Your task to perform on an android device: Go to Yahoo.com Image 0: 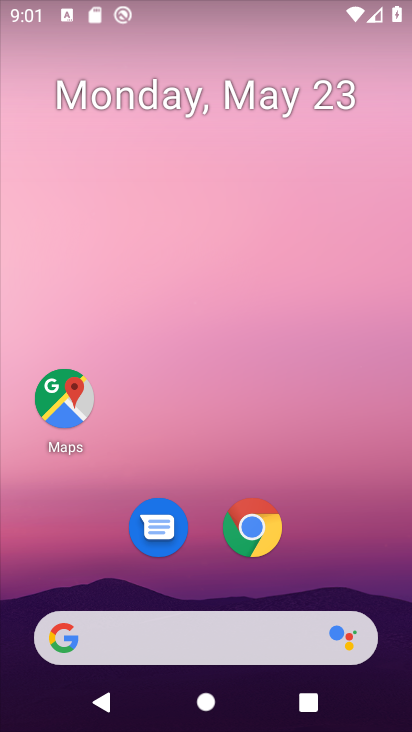
Step 0: drag from (349, 549) to (234, 47)
Your task to perform on an android device: Go to Yahoo.com Image 1: 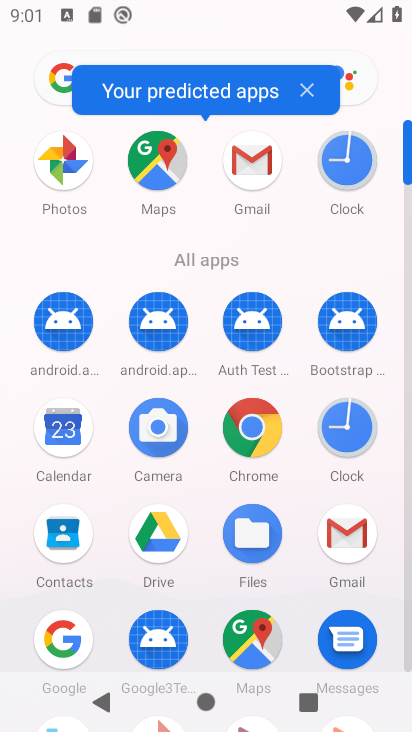
Step 1: click (248, 425)
Your task to perform on an android device: Go to Yahoo.com Image 2: 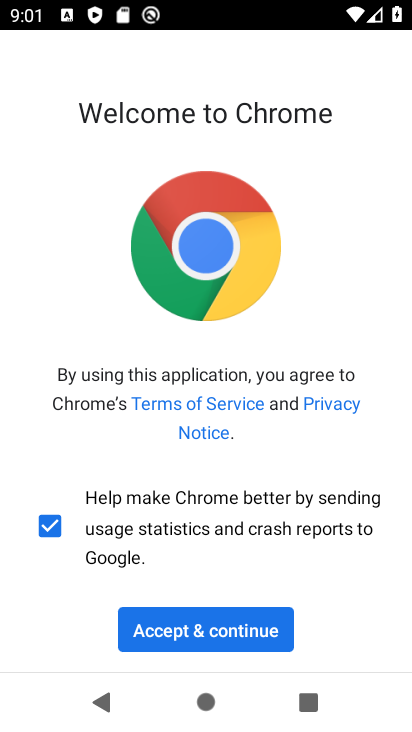
Step 2: click (218, 628)
Your task to perform on an android device: Go to Yahoo.com Image 3: 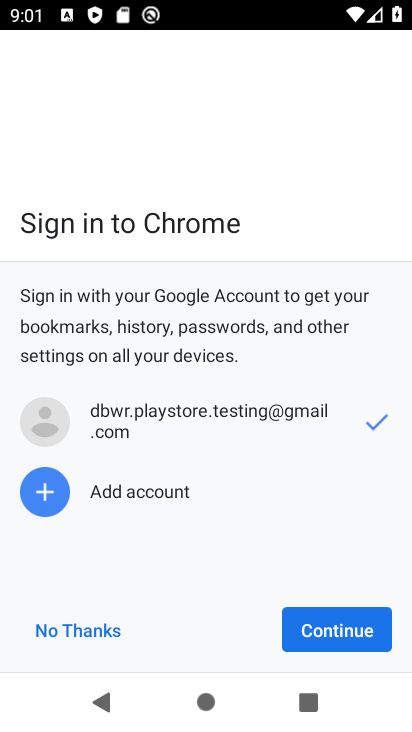
Step 3: click (310, 627)
Your task to perform on an android device: Go to Yahoo.com Image 4: 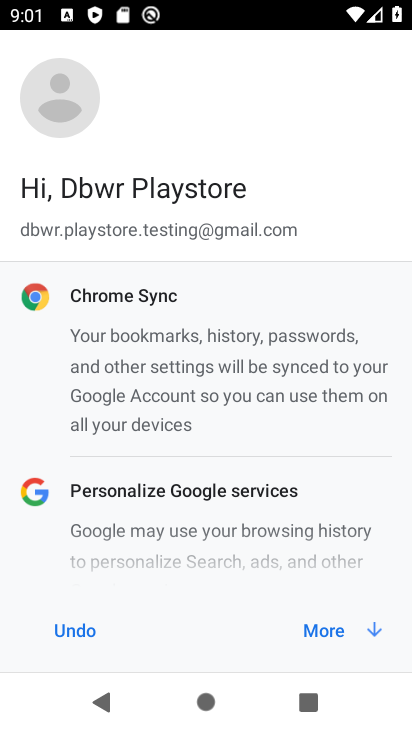
Step 4: click (324, 624)
Your task to perform on an android device: Go to Yahoo.com Image 5: 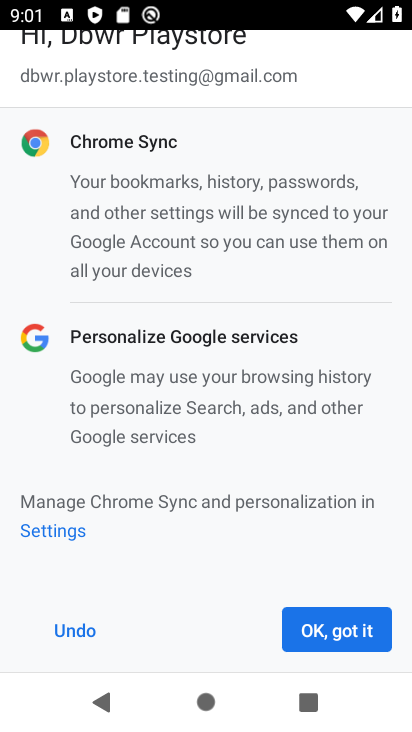
Step 5: click (324, 624)
Your task to perform on an android device: Go to Yahoo.com Image 6: 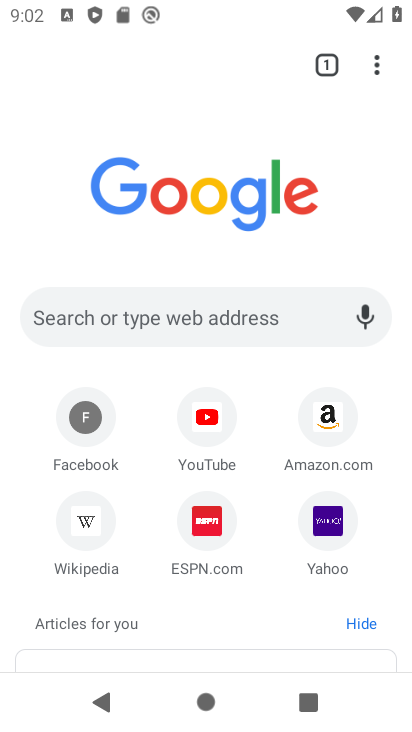
Step 6: click (154, 317)
Your task to perform on an android device: Go to Yahoo.com Image 7: 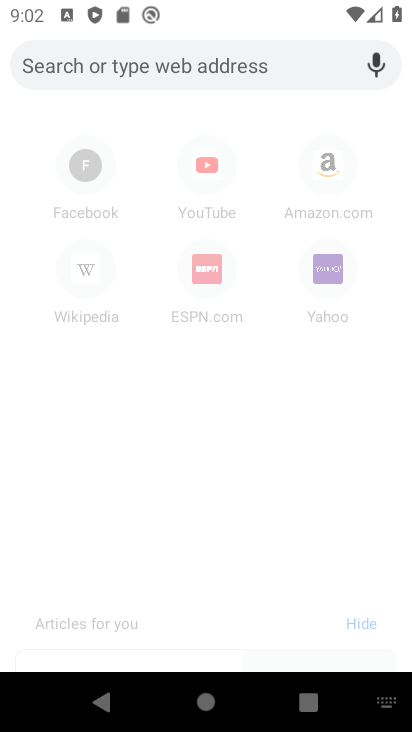
Step 7: click (320, 271)
Your task to perform on an android device: Go to Yahoo.com Image 8: 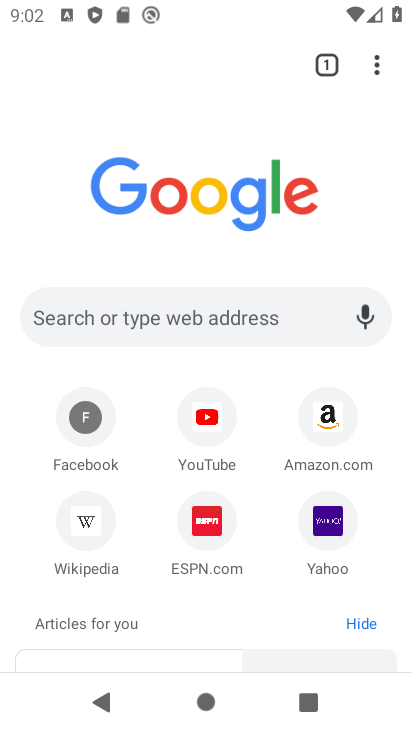
Step 8: click (332, 540)
Your task to perform on an android device: Go to Yahoo.com Image 9: 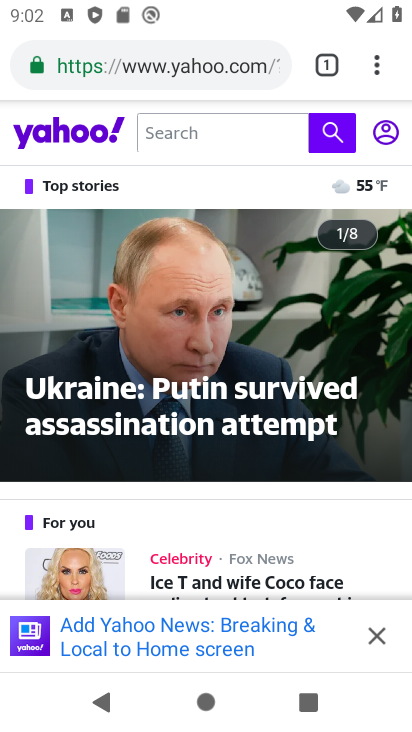
Step 9: task complete